Your task to perform on an android device: Toggle the flashlight Image 0: 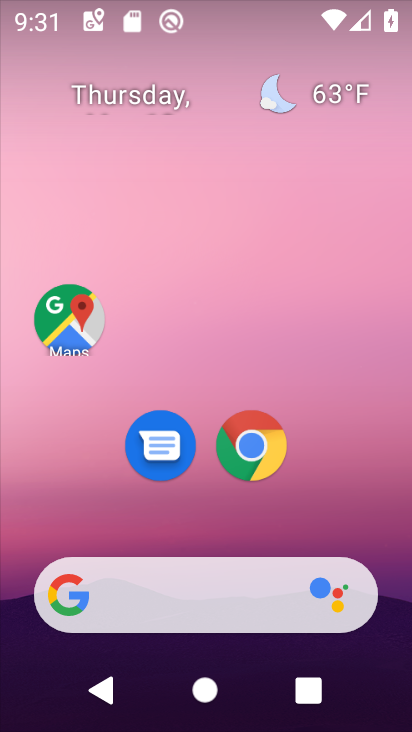
Step 0: drag from (267, 534) to (315, 206)
Your task to perform on an android device: Toggle the flashlight Image 1: 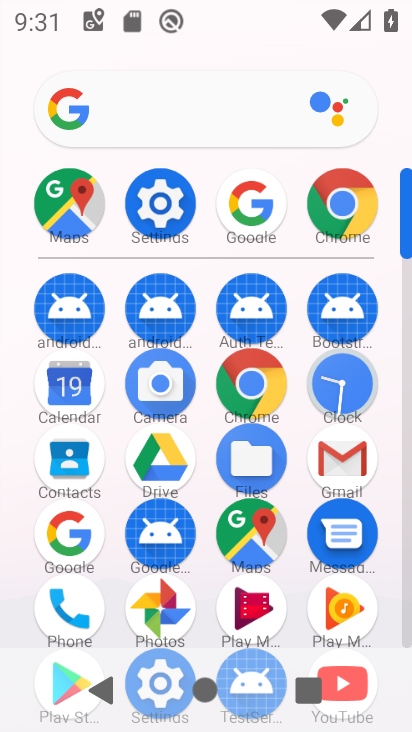
Step 1: click (153, 207)
Your task to perform on an android device: Toggle the flashlight Image 2: 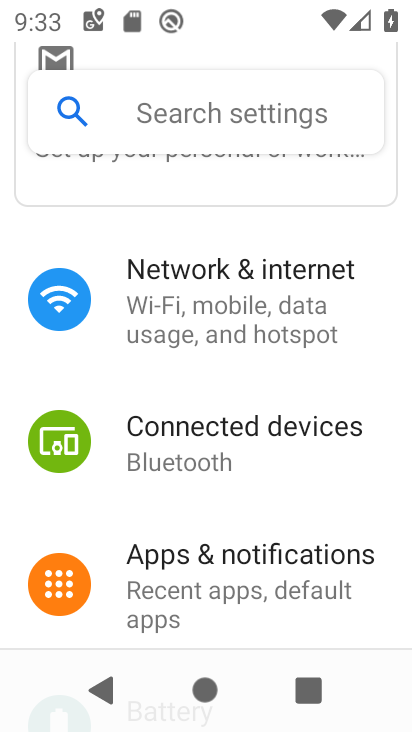
Step 2: task complete